Your task to perform on an android device: Open the map Image 0: 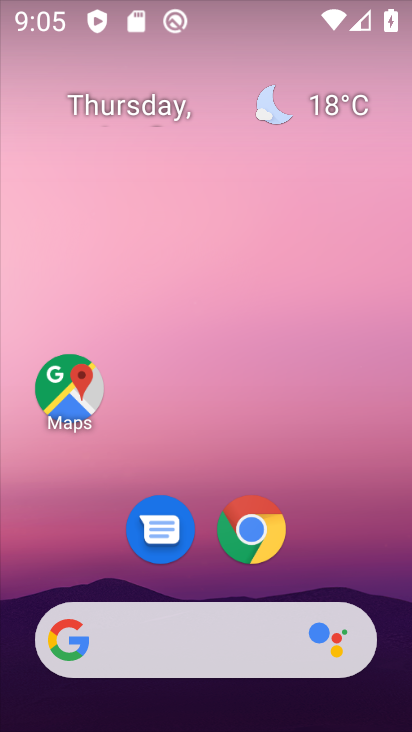
Step 0: press back button
Your task to perform on an android device: Open the map Image 1: 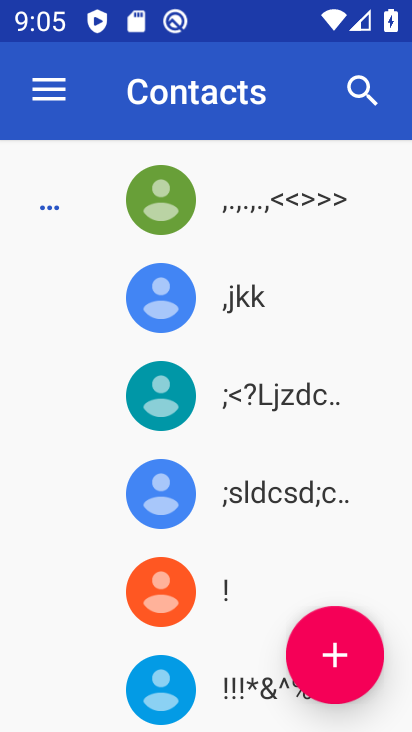
Step 1: press home button
Your task to perform on an android device: Open the map Image 2: 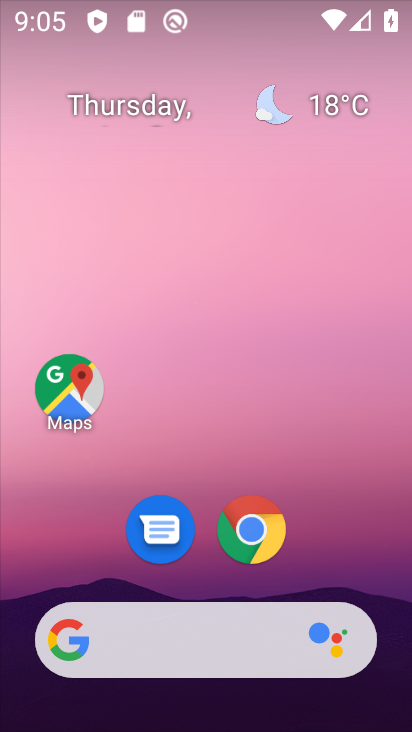
Step 2: press home button
Your task to perform on an android device: Open the map Image 3: 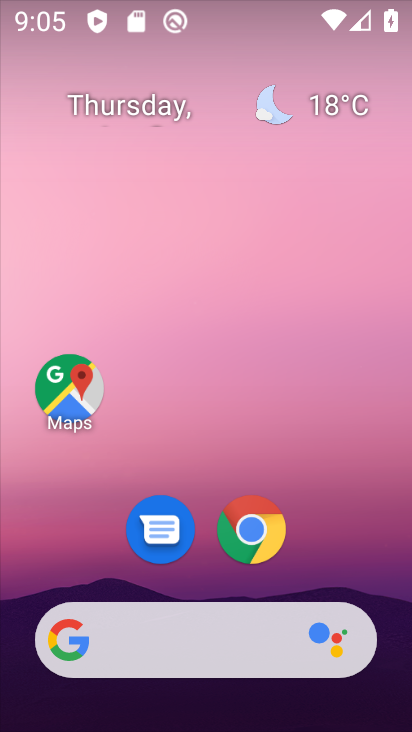
Step 3: click (46, 403)
Your task to perform on an android device: Open the map Image 4: 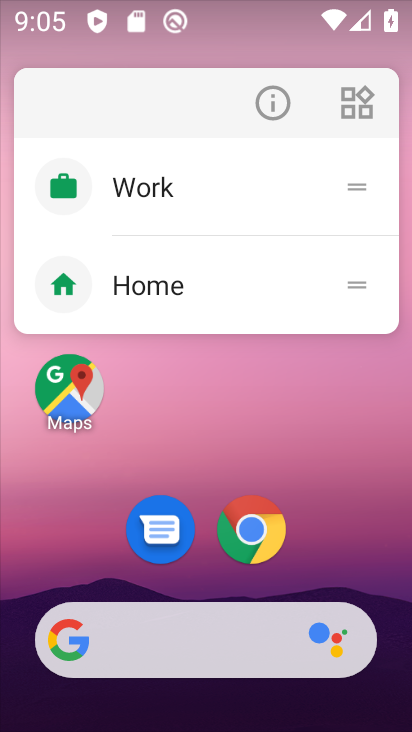
Step 4: click (62, 387)
Your task to perform on an android device: Open the map Image 5: 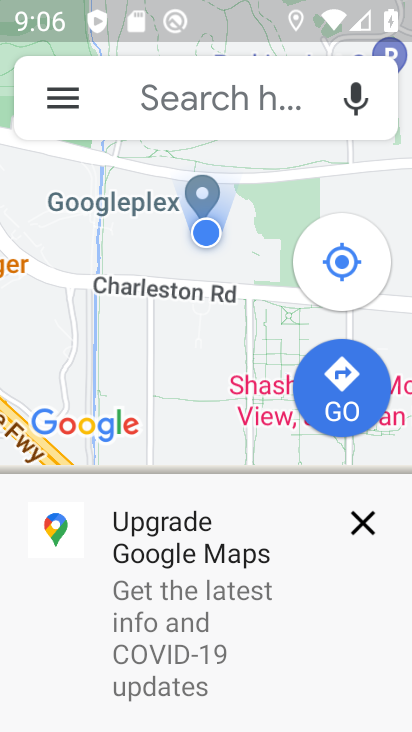
Step 5: task complete